Your task to perform on an android device: open app "Airtel Thanks" Image 0: 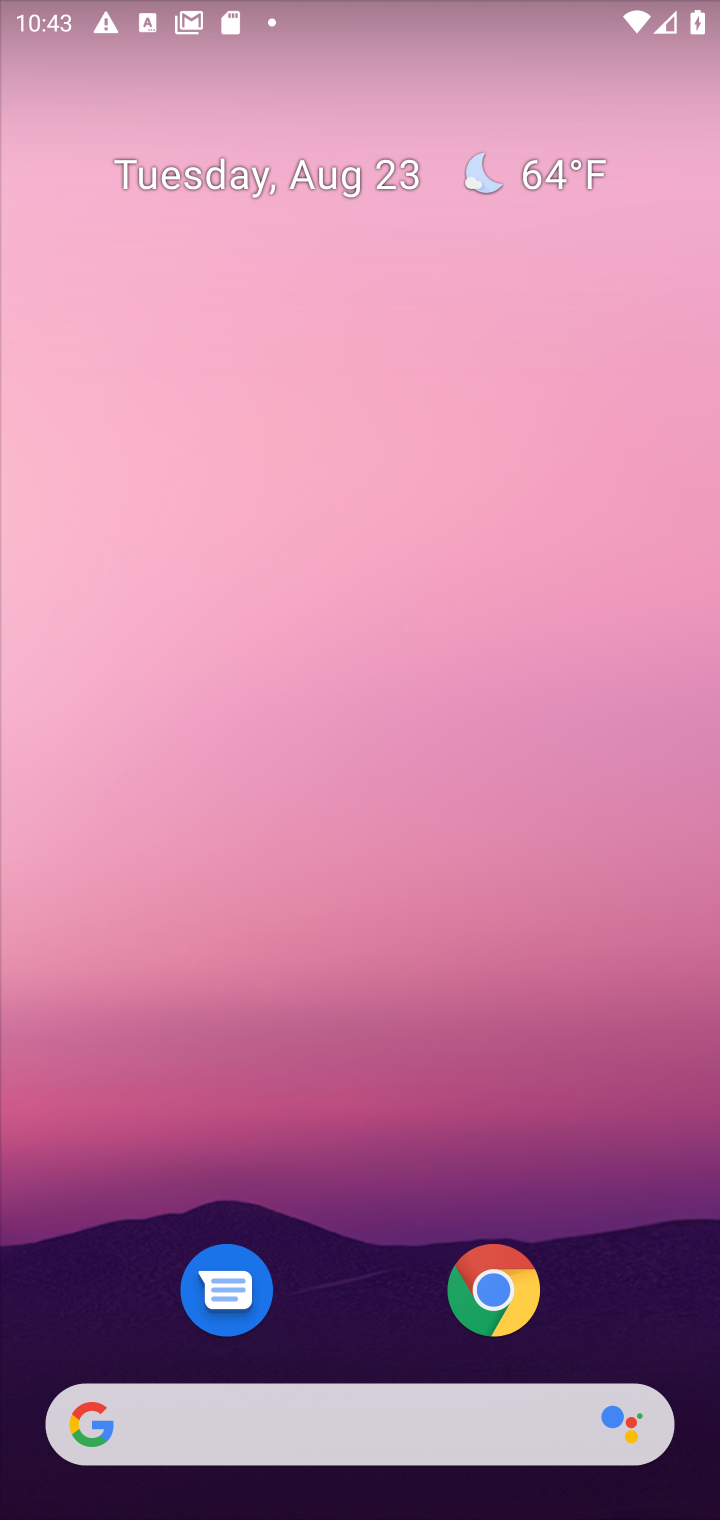
Step 0: drag from (314, 1372) to (232, 59)
Your task to perform on an android device: open app "Airtel Thanks" Image 1: 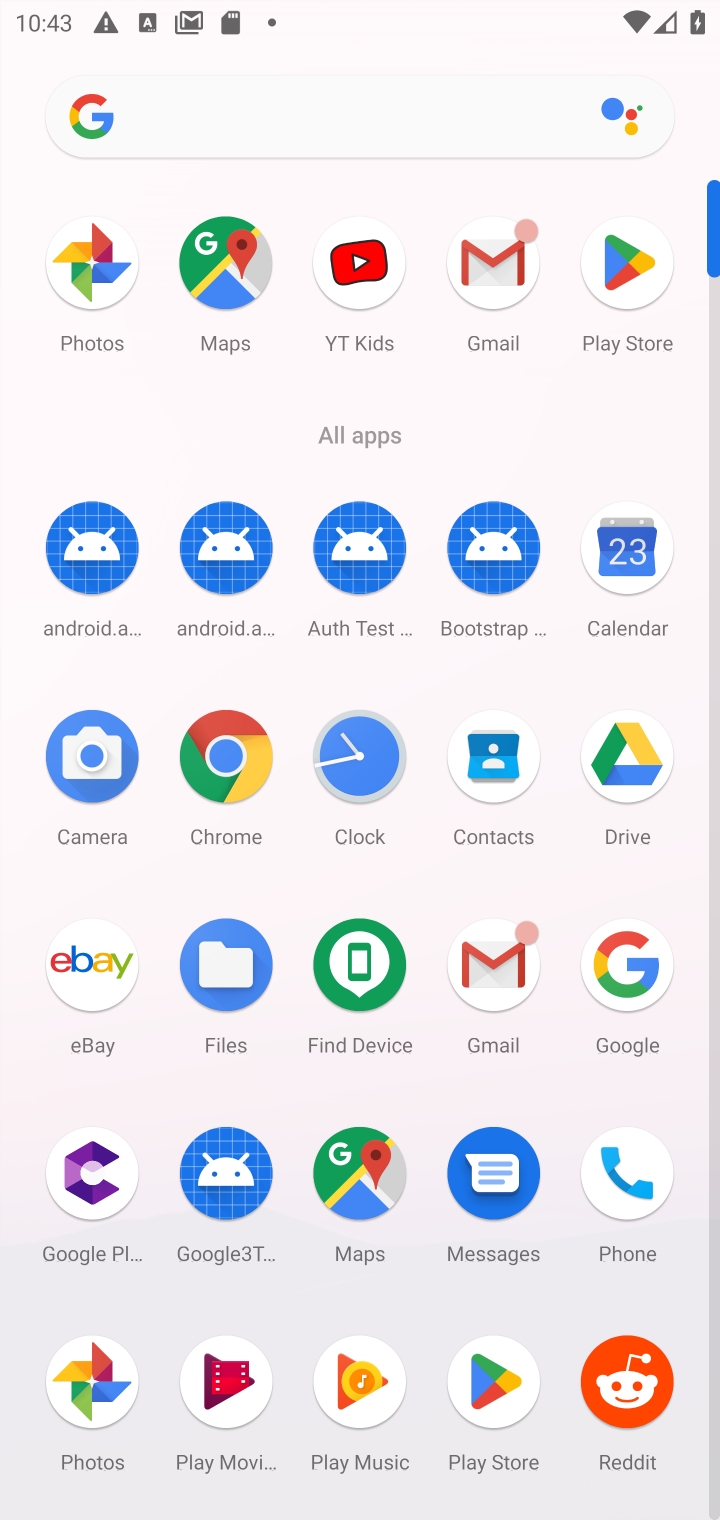
Step 1: click (615, 270)
Your task to perform on an android device: open app "Airtel Thanks" Image 2: 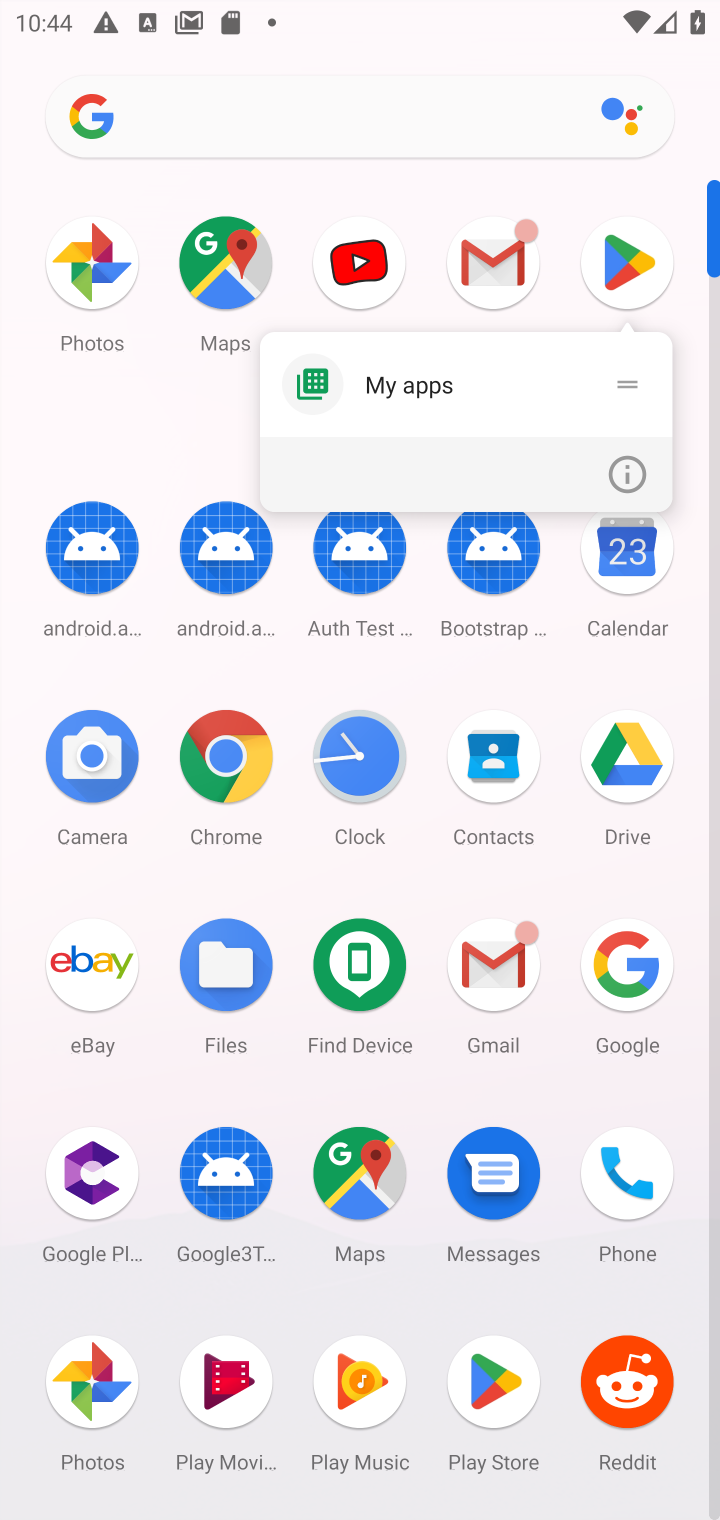
Step 2: click (672, 250)
Your task to perform on an android device: open app "Airtel Thanks" Image 3: 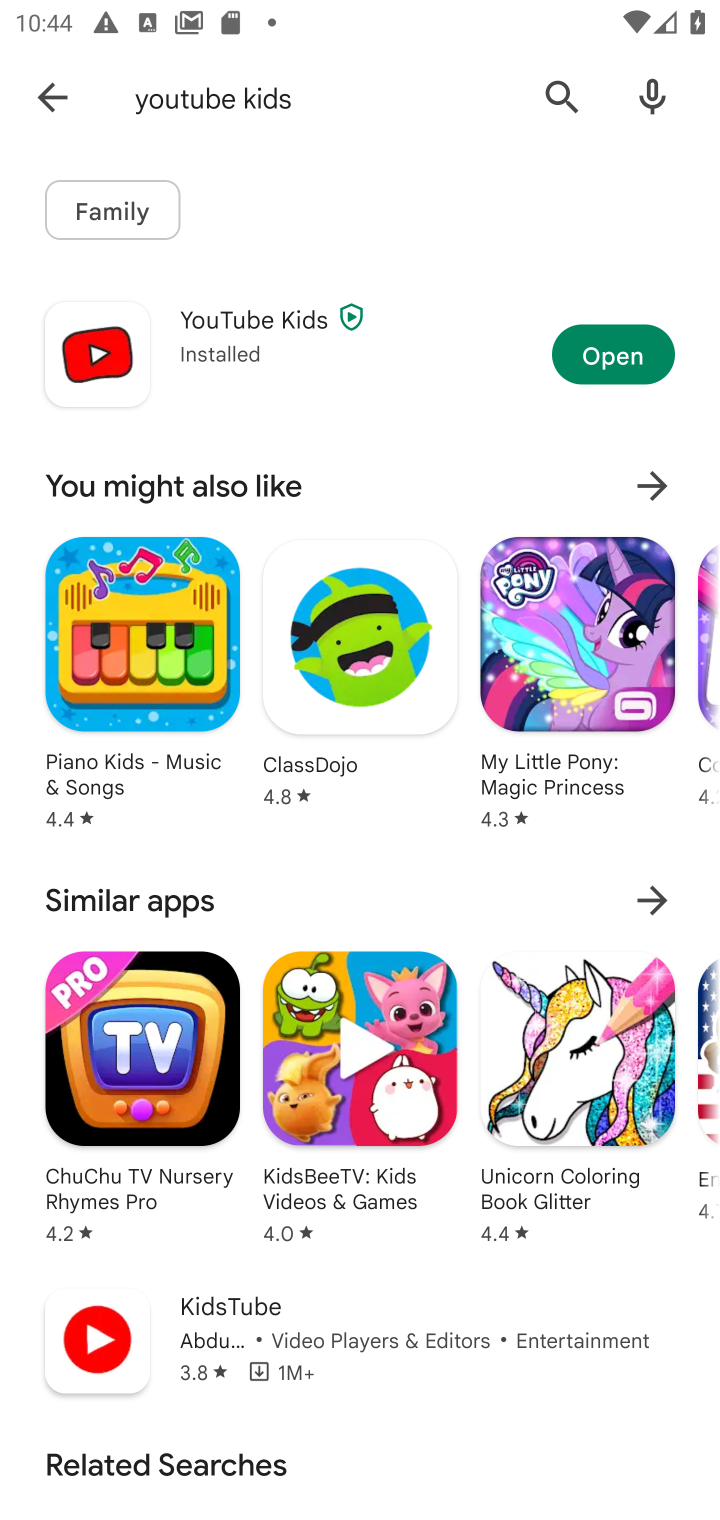
Step 3: click (562, 94)
Your task to perform on an android device: open app "Airtel Thanks" Image 4: 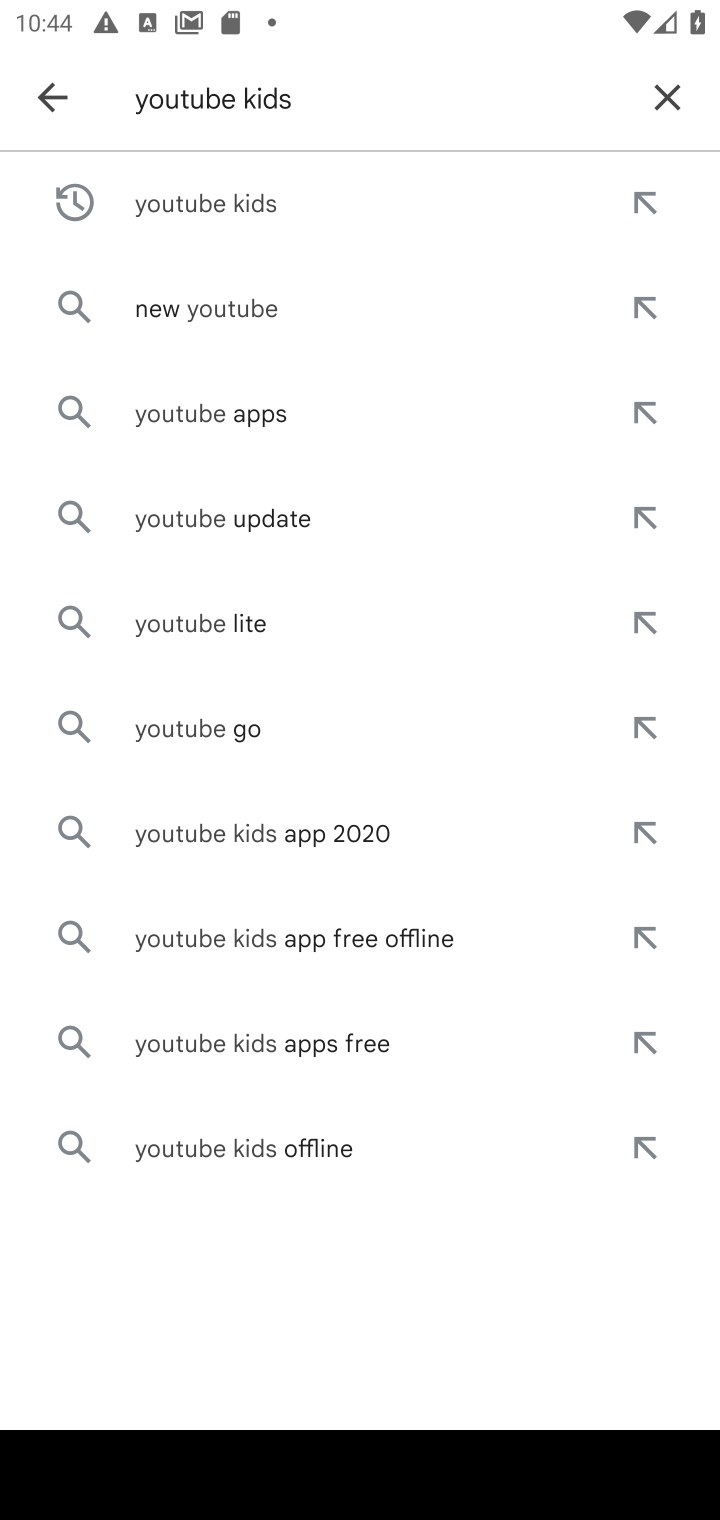
Step 4: click (658, 95)
Your task to perform on an android device: open app "Airtel Thanks" Image 5: 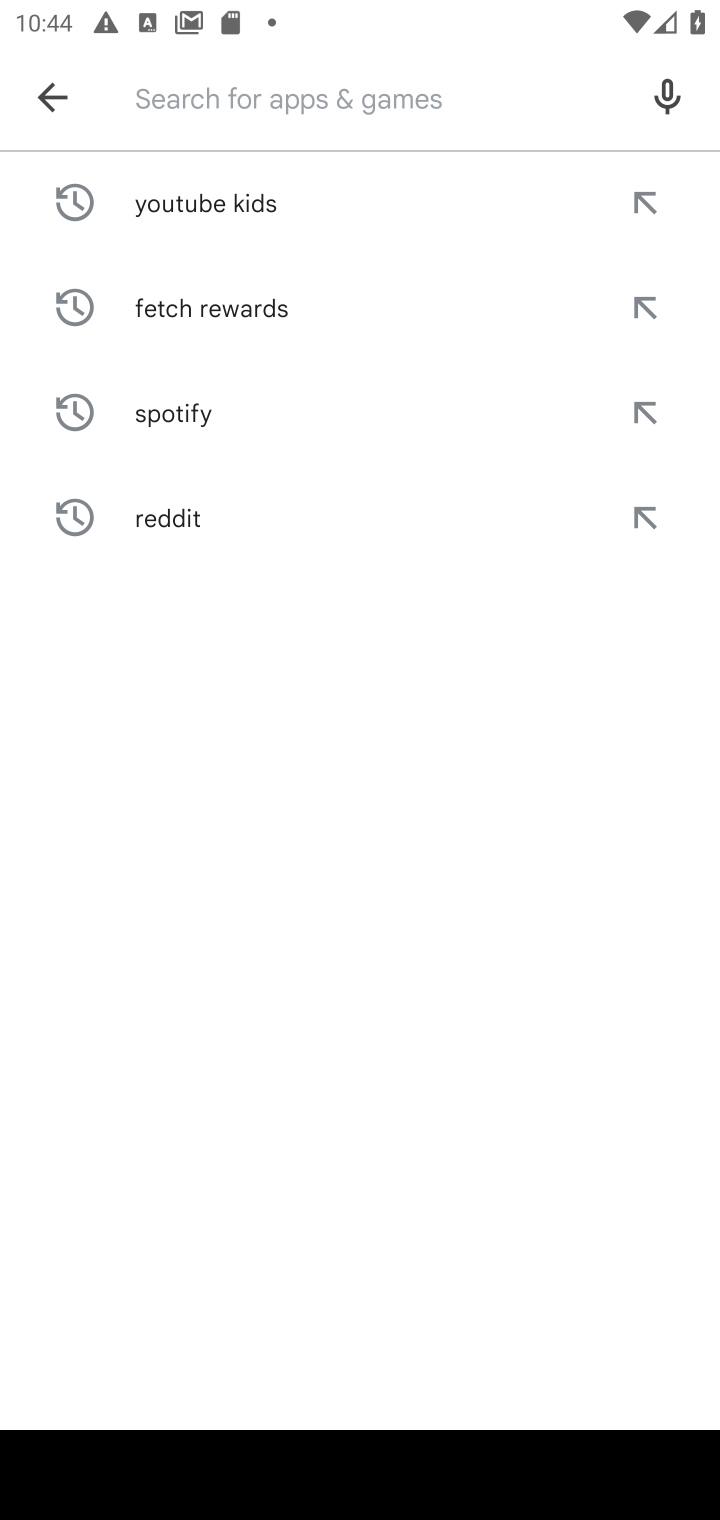
Step 5: type "Airtel Thanks"
Your task to perform on an android device: open app "Airtel Thanks" Image 6: 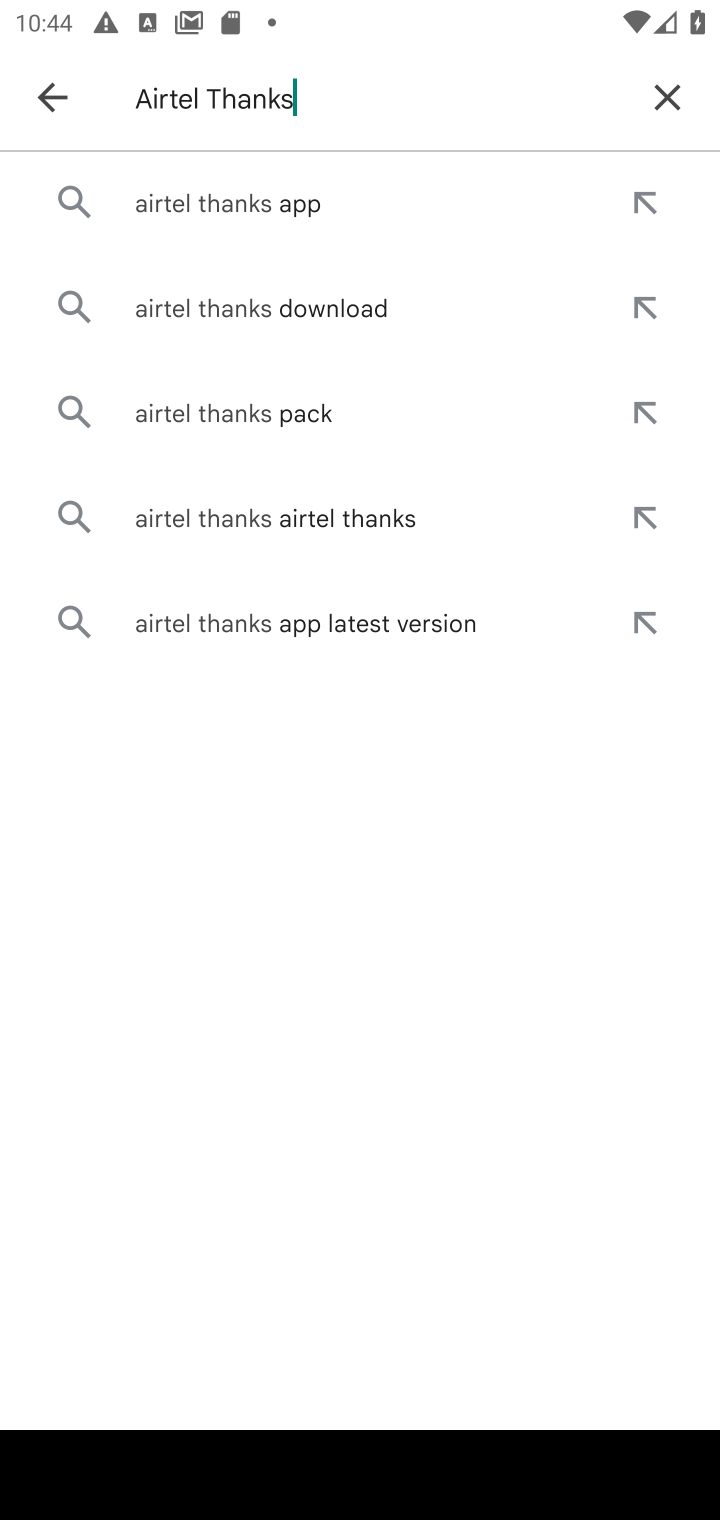
Step 6: click (203, 202)
Your task to perform on an android device: open app "Airtel Thanks" Image 7: 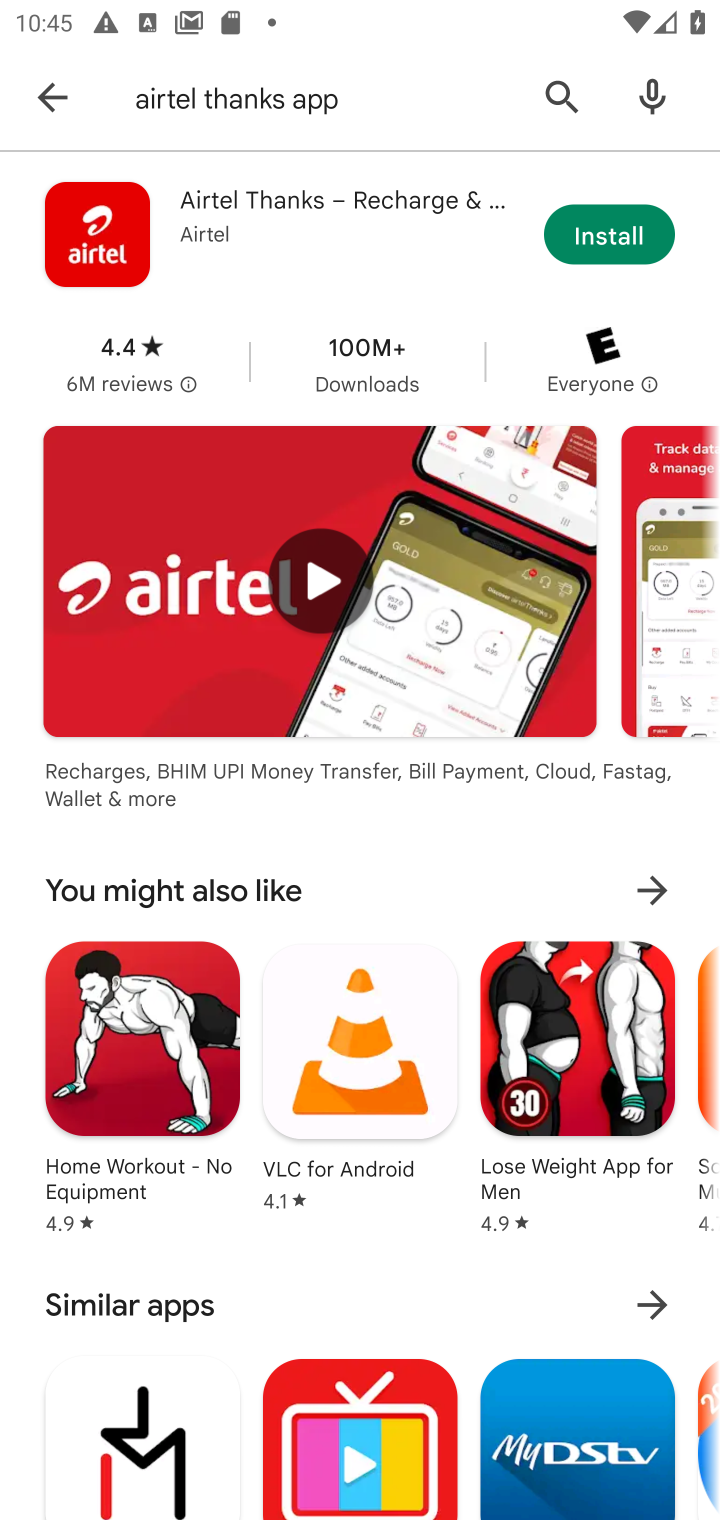
Step 7: task complete